Your task to perform on an android device: View the shopping cart on amazon. Search for alienware aurora on amazon, select the first entry, add it to the cart, then select checkout. Image 0: 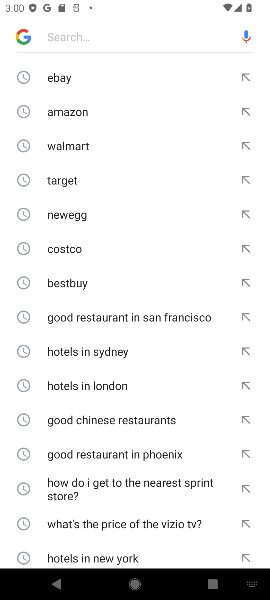
Step 0: click (109, 114)
Your task to perform on an android device: View the shopping cart on amazon. Search for alienware aurora on amazon, select the first entry, add it to the cart, then select checkout. Image 1: 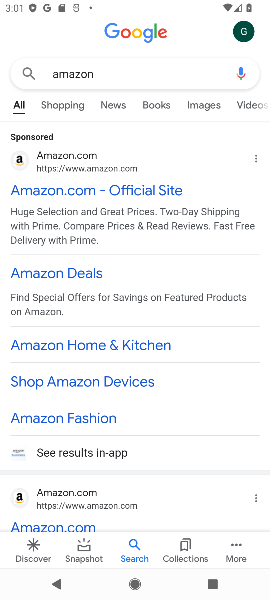
Step 1: click (162, 190)
Your task to perform on an android device: View the shopping cart on amazon. Search for alienware aurora on amazon, select the first entry, add it to the cart, then select checkout. Image 2: 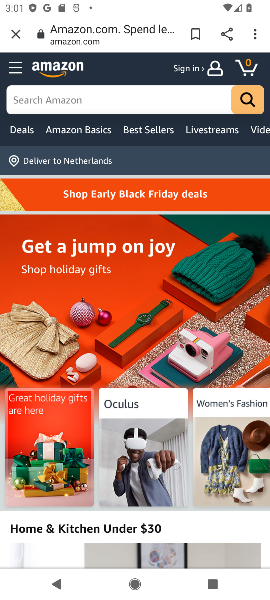
Step 2: click (43, 96)
Your task to perform on an android device: View the shopping cart on amazon. Search for alienware aurora on amazon, select the first entry, add it to the cart, then select checkout. Image 3: 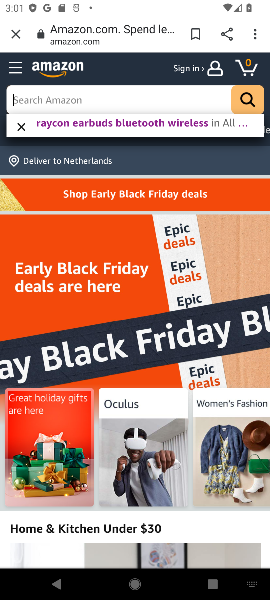
Step 3: type "alienware aurora"
Your task to perform on an android device: View the shopping cart on amazon. Search for alienware aurora on amazon, select the first entry, add it to the cart, then select checkout. Image 4: 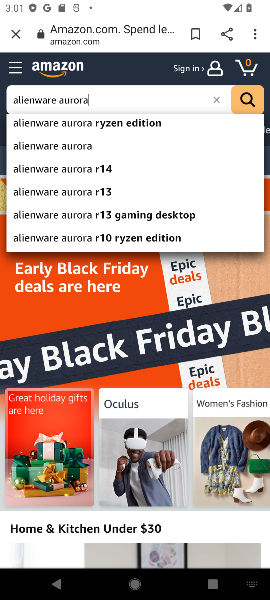
Step 4: click (107, 122)
Your task to perform on an android device: View the shopping cart on amazon. Search for alienware aurora on amazon, select the first entry, add it to the cart, then select checkout. Image 5: 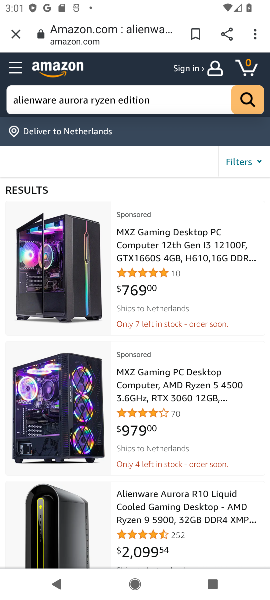
Step 5: click (176, 253)
Your task to perform on an android device: View the shopping cart on amazon. Search for alienware aurora on amazon, select the first entry, add it to the cart, then select checkout. Image 6: 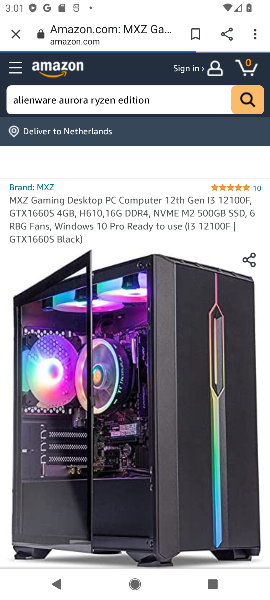
Step 6: drag from (62, 502) to (87, 276)
Your task to perform on an android device: View the shopping cart on amazon. Search for alienware aurora on amazon, select the first entry, add it to the cart, then select checkout. Image 7: 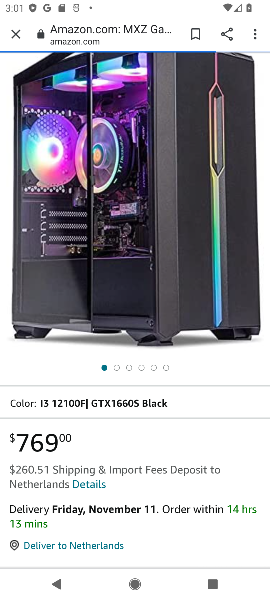
Step 7: drag from (86, 465) to (105, 362)
Your task to perform on an android device: View the shopping cart on amazon. Search for alienware aurora on amazon, select the first entry, add it to the cart, then select checkout. Image 8: 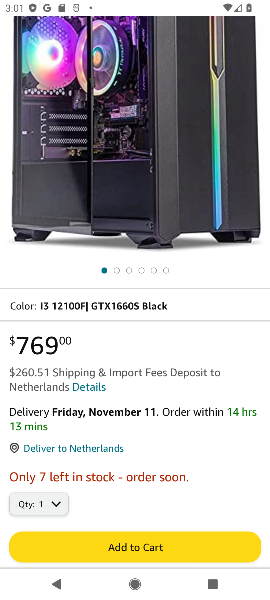
Step 8: click (86, 551)
Your task to perform on an android device: View the shopping cart on amazon. Search for alienware aurora on amazon, select the first entry, add it to the cart, then select checkout. Image 9: 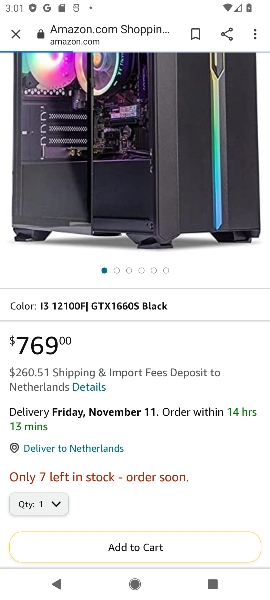
Step 9: task complete